Your task to perform on an android device: Open wifi settings Image 0: 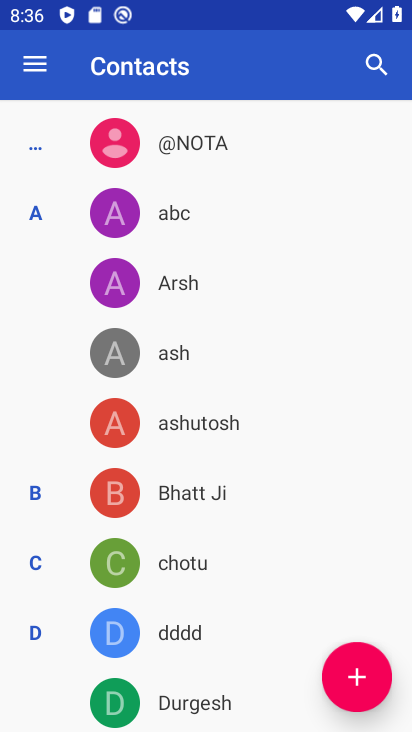
Step 0: press home button
Your task to perform on an android device: Open wifi settings Image 1: 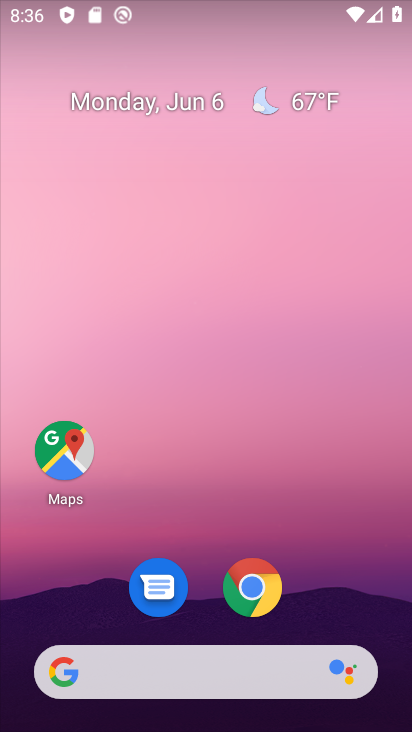
Step 1: drag from (189, 616) to (253, 8)
Your task to perform on an android device: Open wifi settings Image 2: 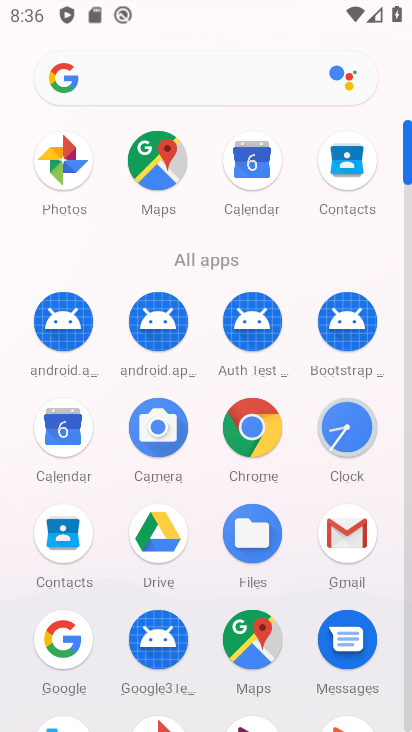
Step 2: drag from (197, 544) to (298, 48)
Your task to perform on an android device: Open wifi settings Image 3: 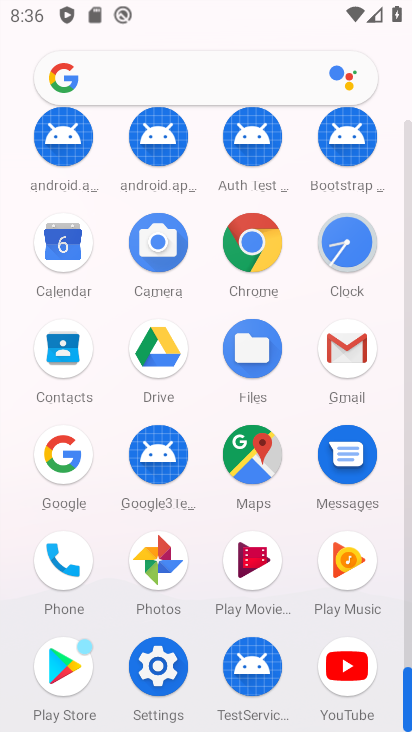
Step 3: click (151, 683)
Your task to perform on an android device: Open wifi settings Image 4: 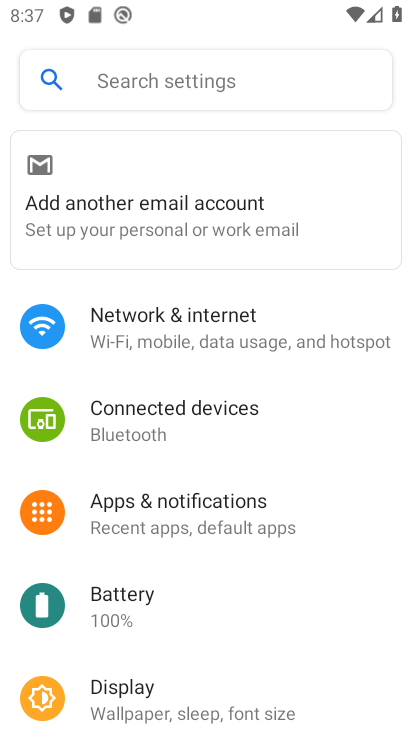
Step 4: click (218, 350)
Your task to perform on an android device: Open wifi settings Image 5: 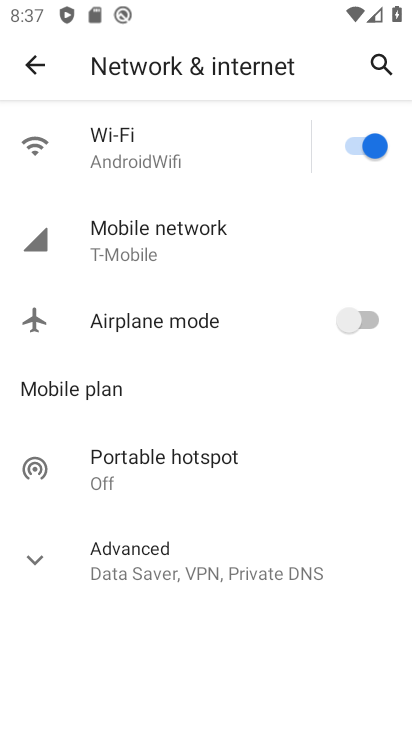
Step 5: click (203, 167)
Your task to perform on an android device: Open wifi settings Image 6: 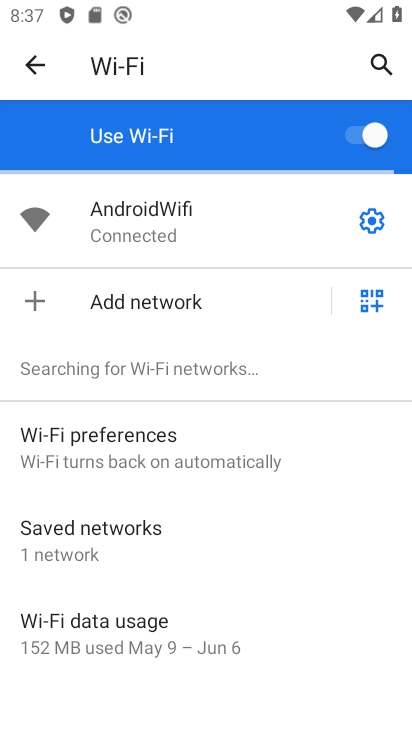
Step 6: task complete